Your task to perform on an android device: turn on airplane mode Image 0: 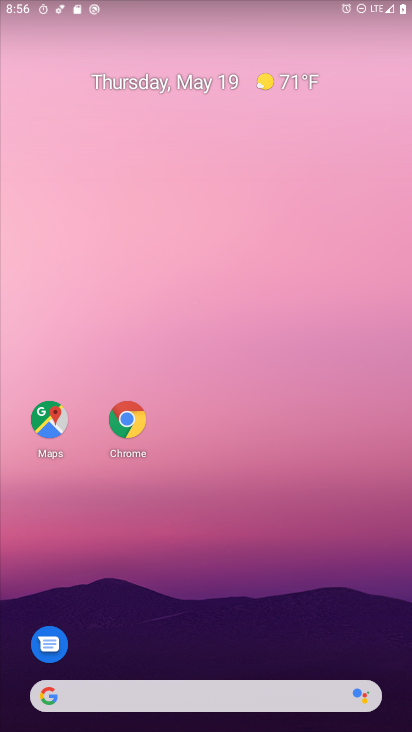
Step 0: drag from (215, 681) to (235, 239)
Your task to perform on an android device: turn on airplane mode Image 1: 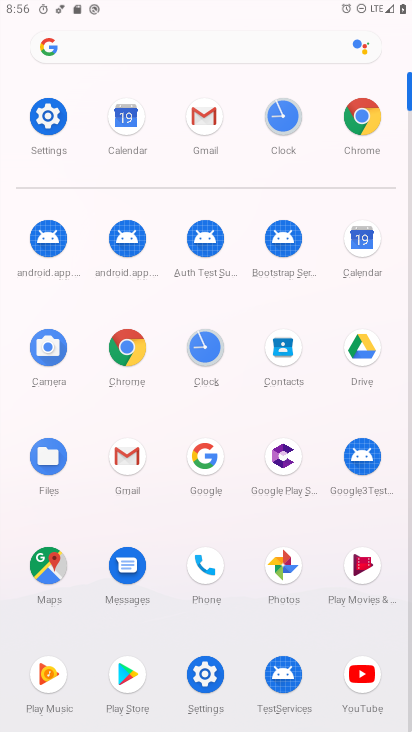
Step 1: click (52, 114)
Your task to perform on an android device: turn on airplane mode Image 2: 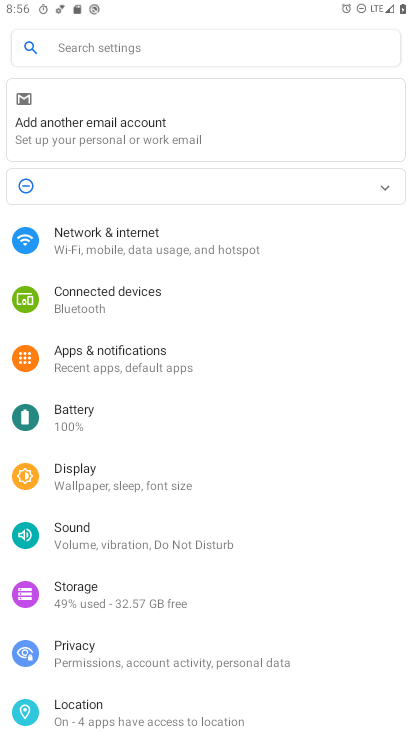
Step 2: click (121, 242)
Your task to perform on an android device: turn on airplane mode Image 3: 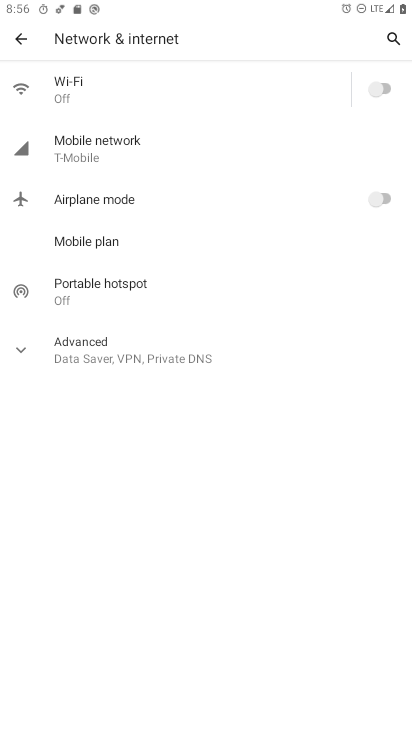
Step 3: click (386, 199)
Your task to perform on an android device: turn on airplane mode Image 4: 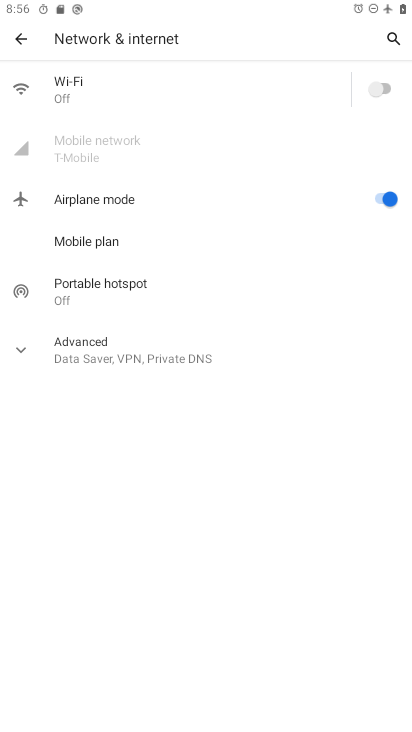
Step 4: task complete